Your task to perform on an android device: change the clock style Image 0: 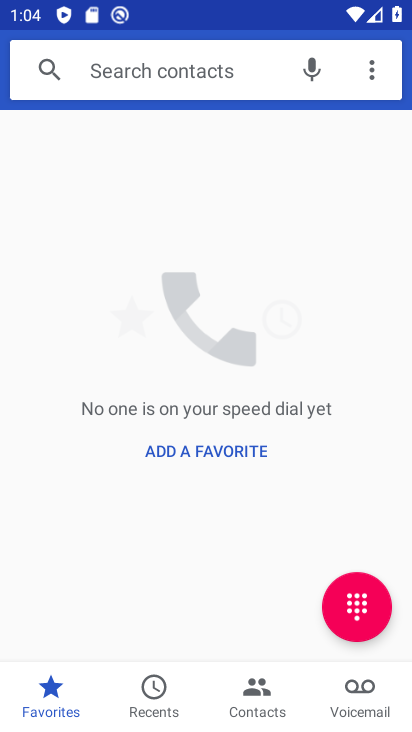
Step 0: press home button
Your task to perform on an android device: change the clock style Image 1: 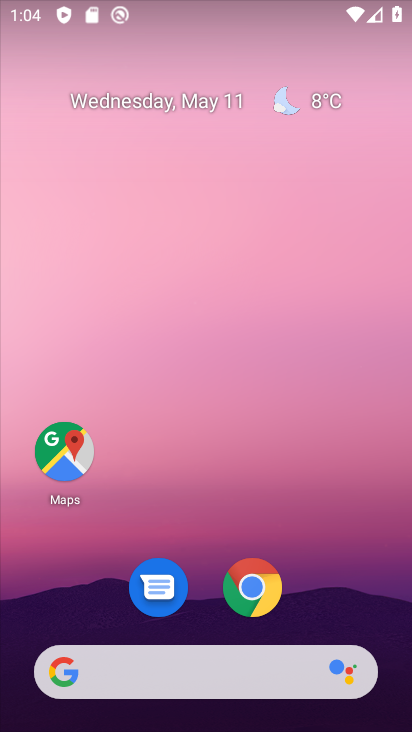
Step 1: drag from (336, 599) to (361, 31)
Your task to perform on an android device: change the clock style Image 2: 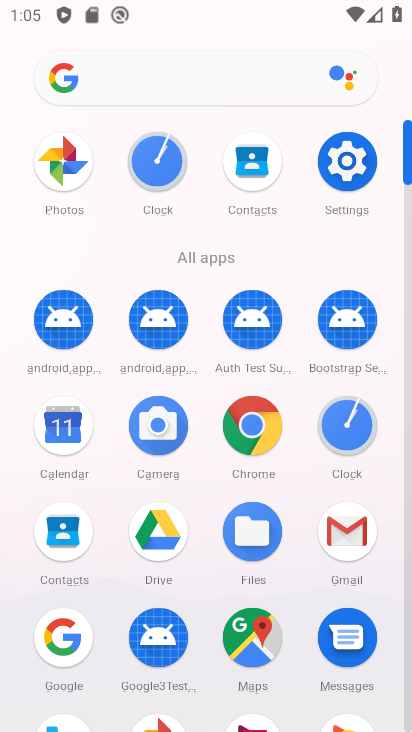
Step 2: click (344, 417)
Your task to perform on an android device: change the clock style Image 3: 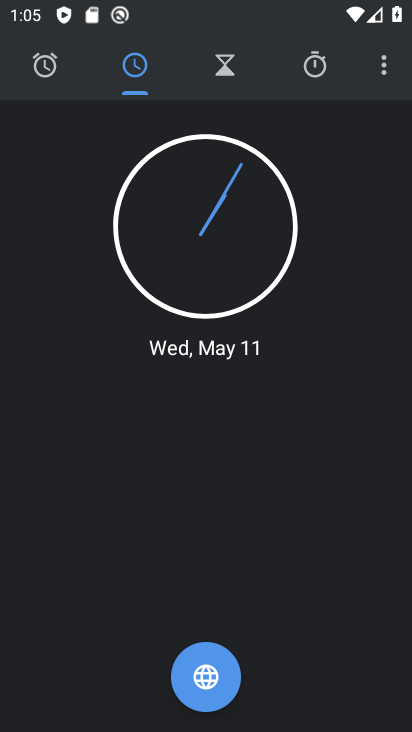
Step 3: click (376, 79)
Your task to perform on an android device: change the clock style Image 4: 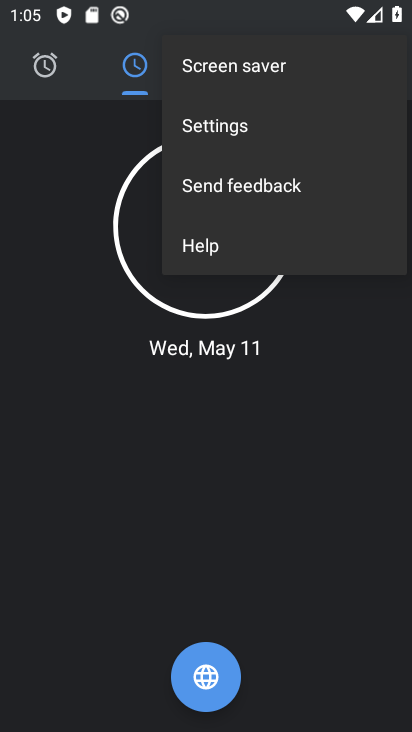
Step 4: click (366, 118)
Your task to perform on an android device: change the clock style Image 5: 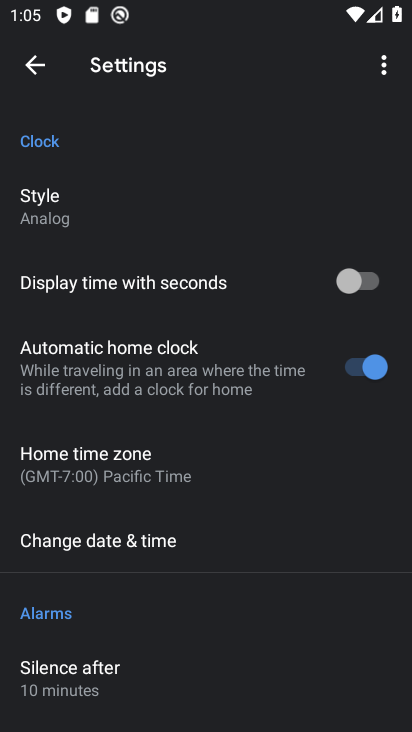
Step 5: click (105, 220)
Your task to perform on an android device: change the clock style Image 6: 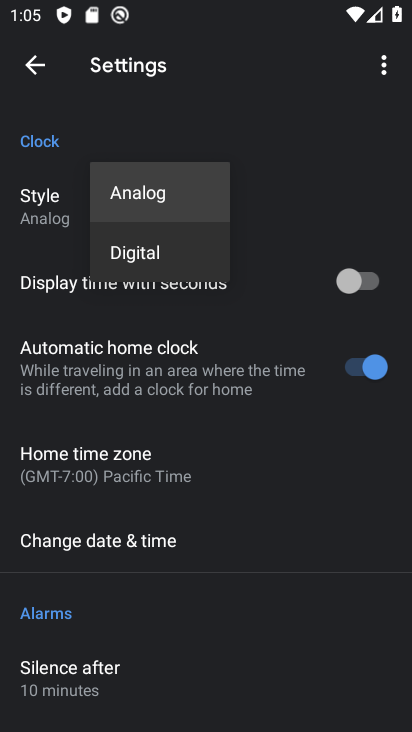
Step 6: click (136, 240)
Your task to perform on an android device: change the clock style Image 7: 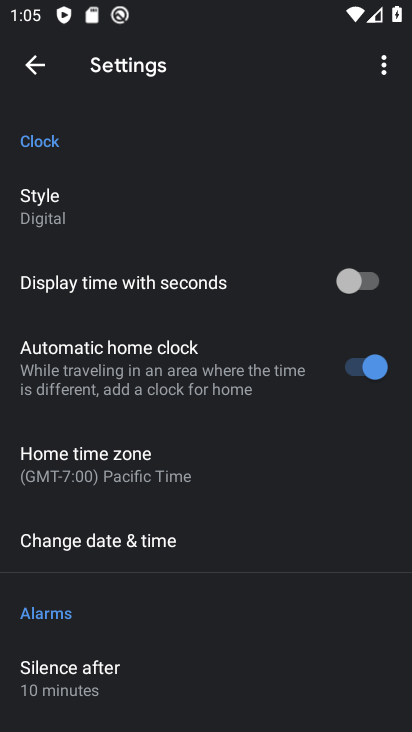
Step 7: task complete